Your task to perform on an android device: Open notification settings Image 0: 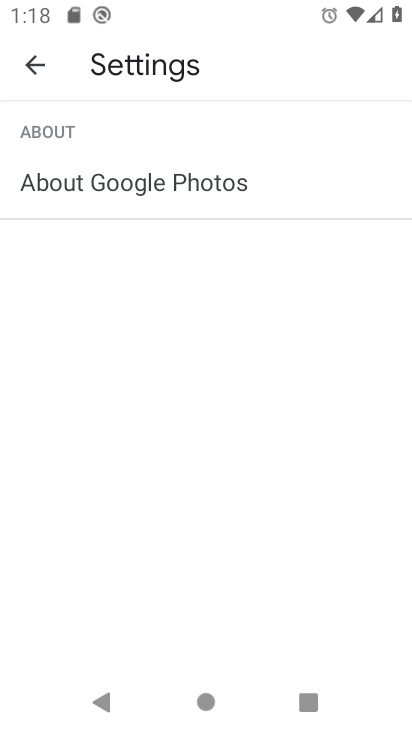
Step 0: press home button
Your task to perform on an android device: Open notification settings Image 1: 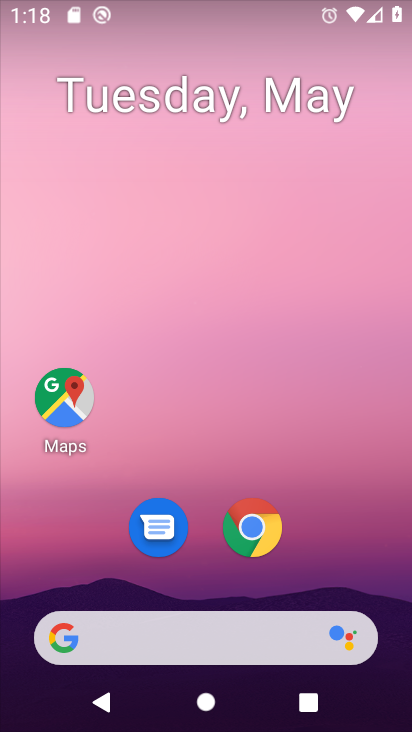
Step 1: drag from (246, 668) to (256, 6)
Your task to perform on an android device: Open notification settings Image 2: 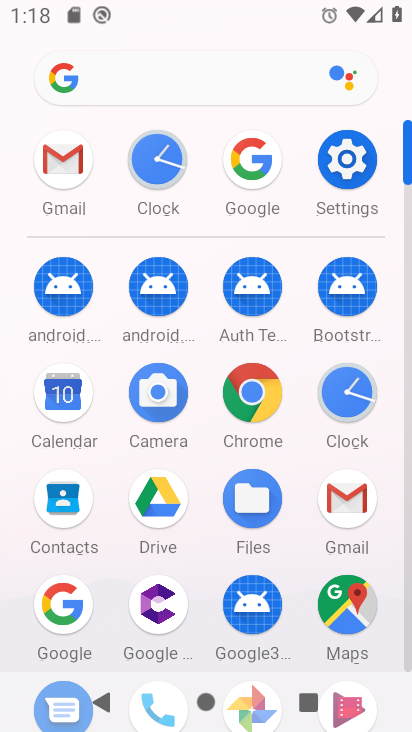
Step 2: click (344, 170)
Your task to perform on an android device: Open notification settings Image 3: 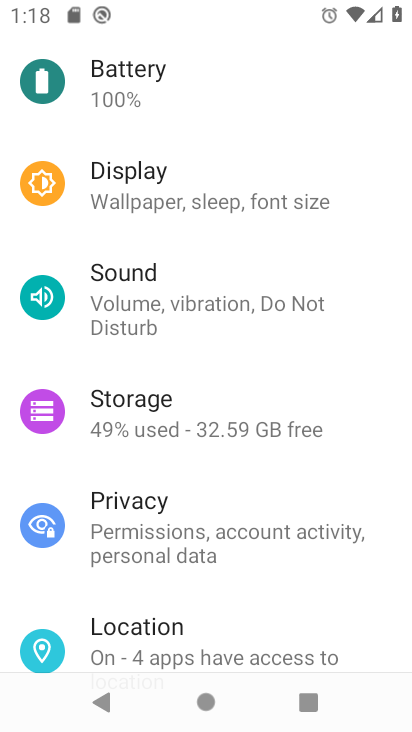
Step 3: drag from (292, 143) to (216, 585)
Your task to perform on an android device: Open notification settings Image 4: 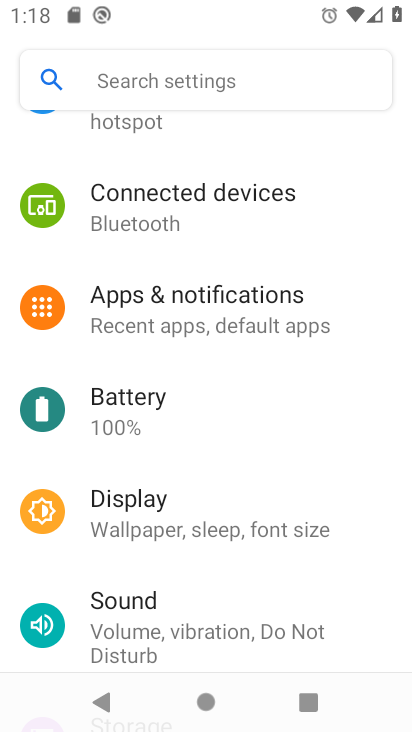
Step 4: click (271, 302)
Your task to perform on an android device: Open notification settings Image 5: 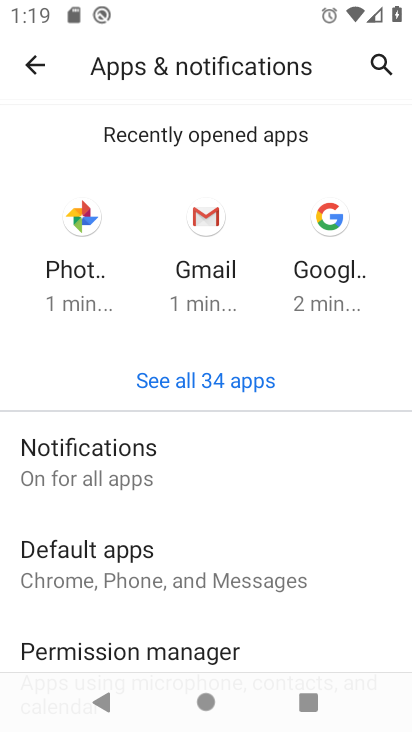
Step 5: task complete